Your task to perform on an android device: What's the weather going to be tomorrow? Image 0: 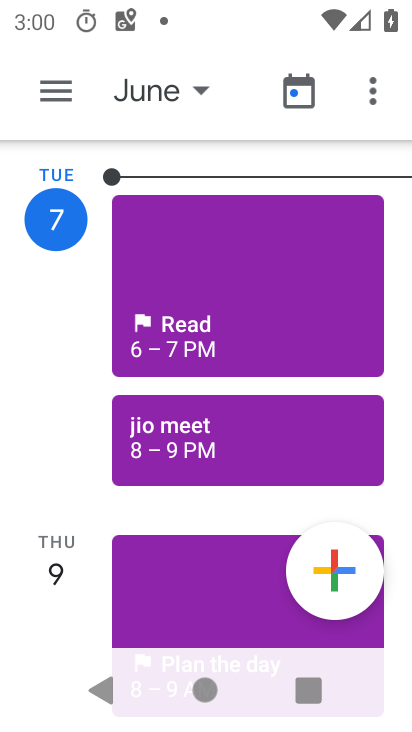
Step 0: press home button
Your task to perform on an android device: What's the weather going to be tomorrow? Image 1: 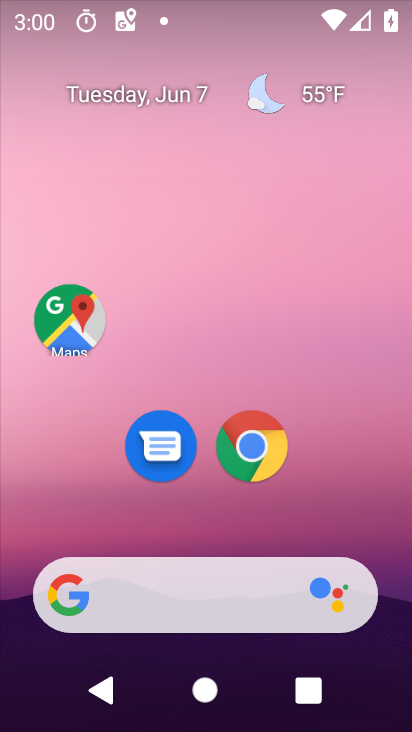
Step 1: click (295, 96)
Your task to perform on an android device: What's the weather going to be tomorrow? Image 2: 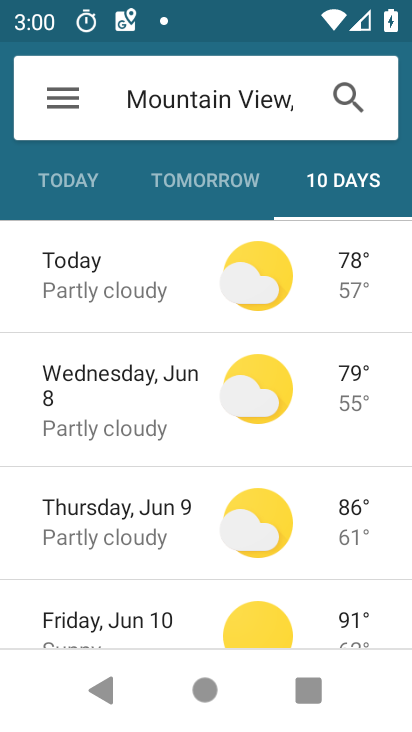
Step 2: click (205, 195)
Your task to perform on an android device: What's the weather going to be tomorrow? Image 3: 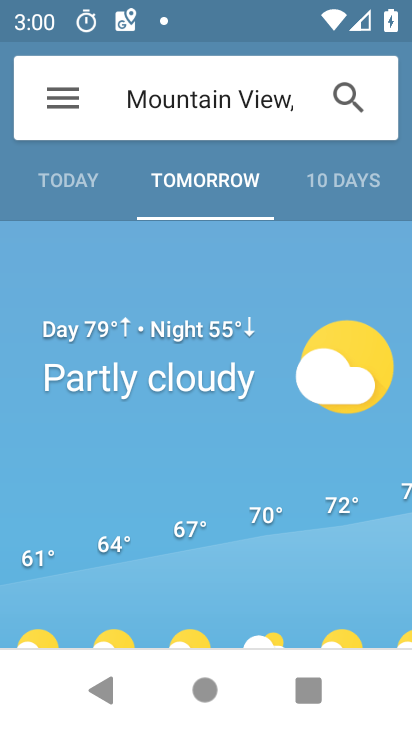
Step 3: task complete